Your task to perform on an android device: Search for pizza restaurants on Maps Image 0: 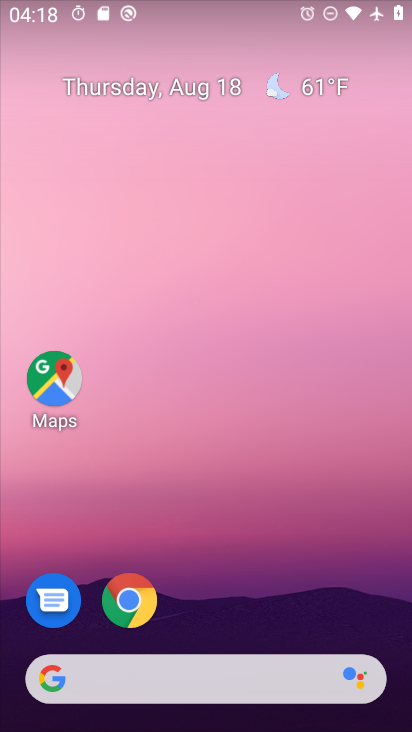
Step 0: press home button
Your task to perform on an android device: Search for pizza restaurants on Maps Image 1: 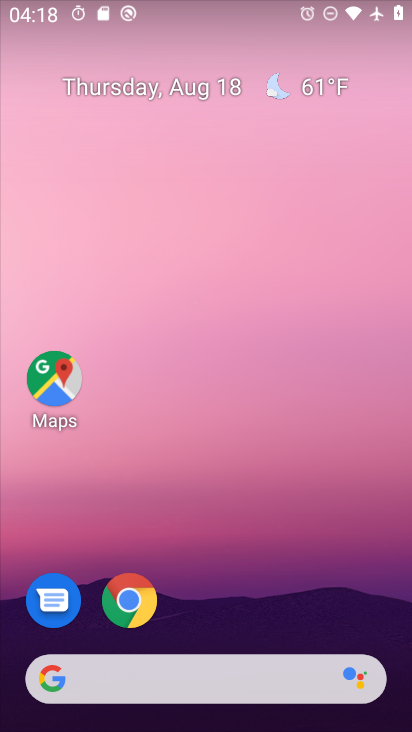
Step 1: click (49, 379)
Your task to perform on an android device: Search for pizza restaurants on Maps Image 2: 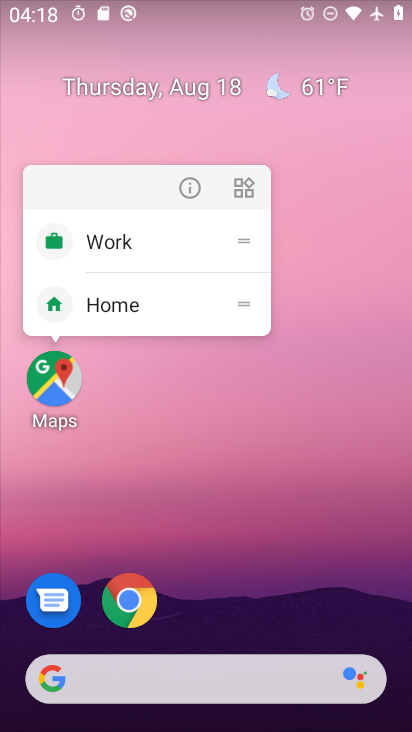
Step 2: click (49, 379)
Your task to perform on an android device: Search for pizza restaurants on Maps Image 3: 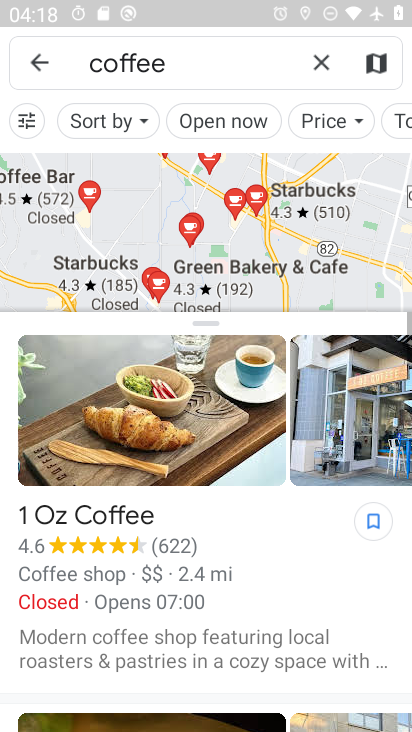
Step 3: press back button
Your task to perform on an android device: Search for pizza restaurants on Maps Image 4: 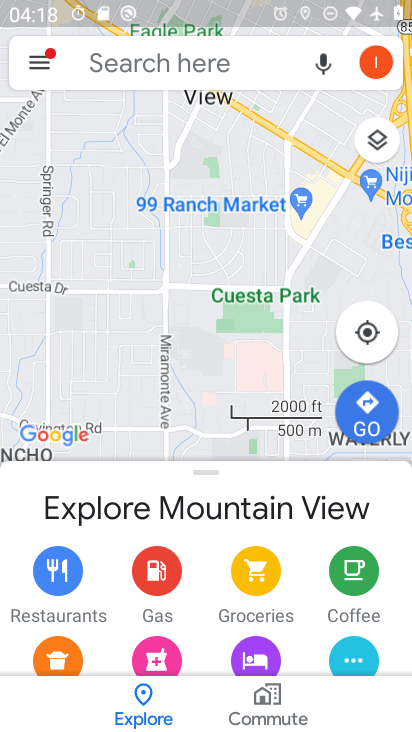
Step 4: click (161, 61)
Your task to perform on an android device: Search for pizza restaurants on Maps Image 5: 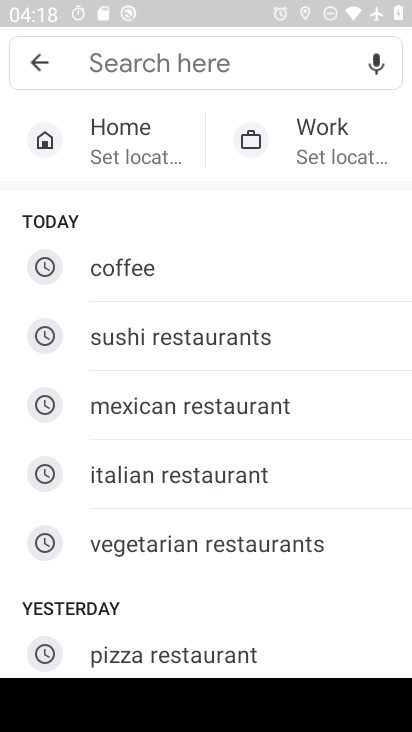
Step 5: click (146, 657)
Your task to perform on an android device: Search for pizza restaurants on Maps Image 6: 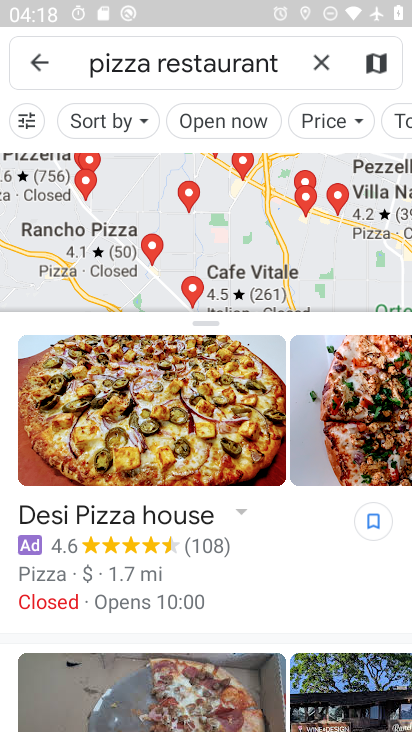
Step 6: task complete